Your task to perform on an android device: find snoozed emails in the gmail app Image 0: 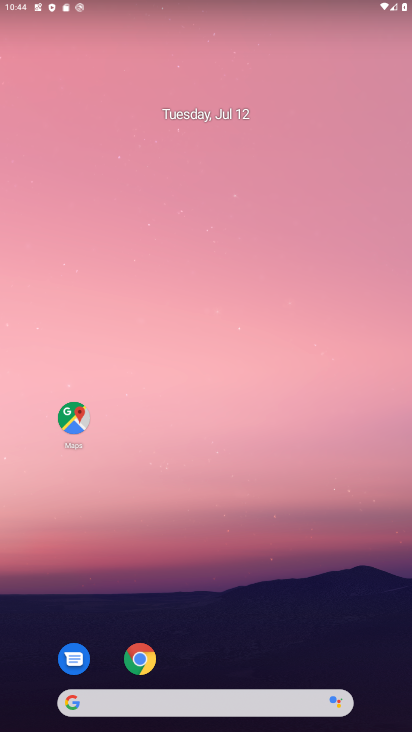
Step 0: drag from (393, 660) to (365, 120)
Your task to perform on an android device: find snoozed emails in the gmail app Image 1: 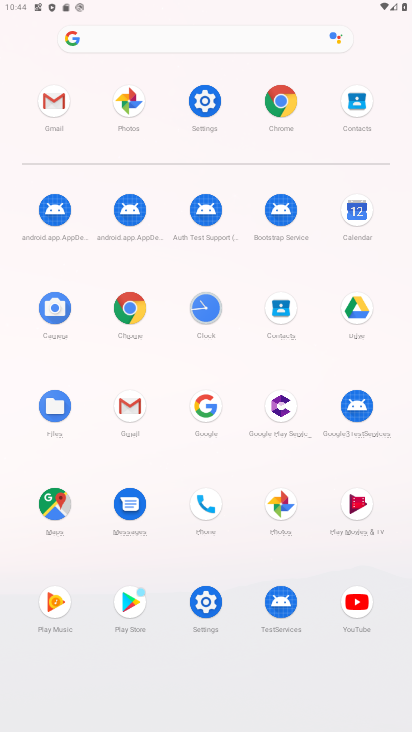
Step 1: click (121, 404)
Your task to perform on an android device: find snoozed emails in the gmail app Image 2: 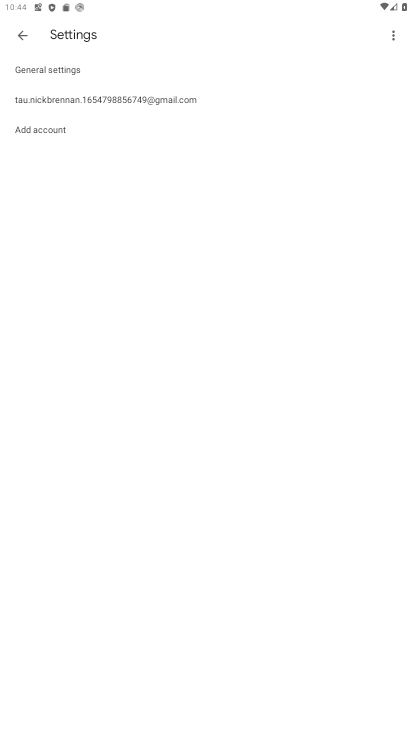
Step 2: click (20, 37)
Your task to perform on an android device: find snoozed emails in the gmail app Image 3: 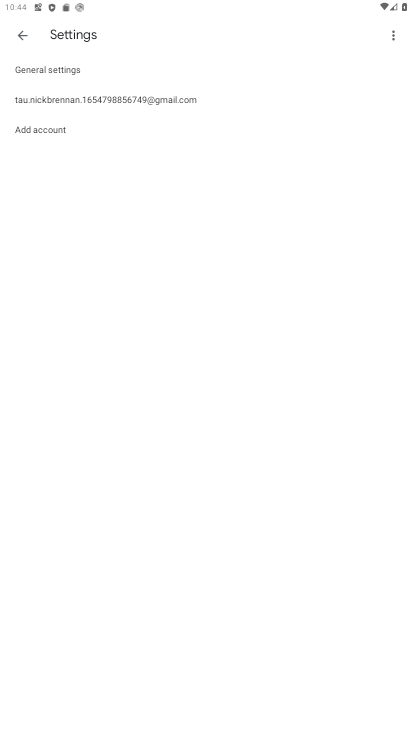
Step 3: click (20, 29)
Your task to perform on an android device: find snoozed emails in the gmail app Image 4: 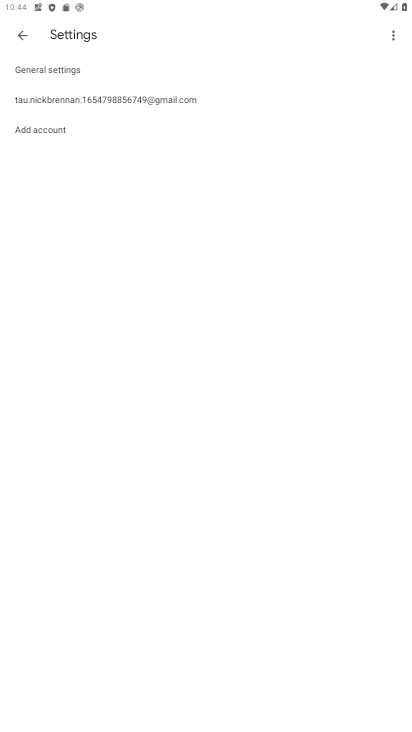
Step 4: click (20, 29)
Your task to perform on an android device: find snoozed emails in the gmail app Image 5: 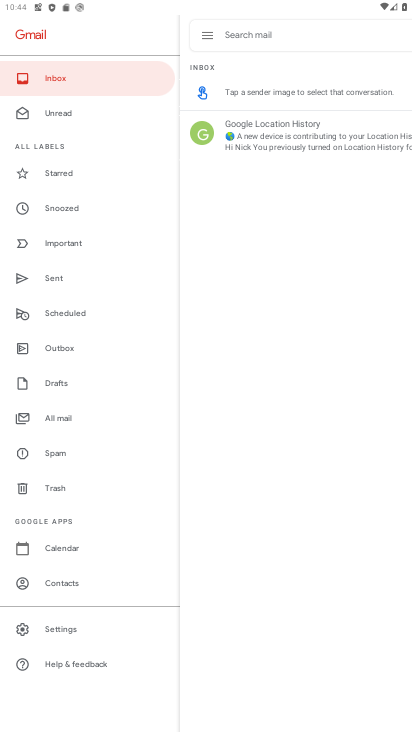
Step 5: click (45, 204)
Your task to perform on an android device: find snoozed emails in the gmail app Image 6: 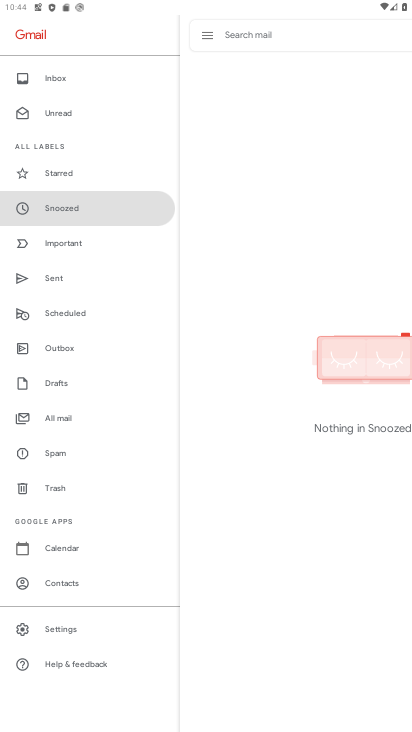
Step 6: task complete